Your task to perform on an android device: check google app version Image 0: 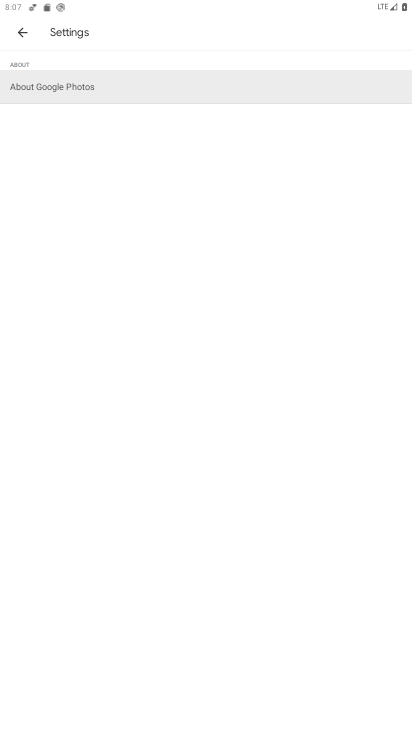
Step 0: press home button
Your task to perform on an android device: check google app version Image 1: 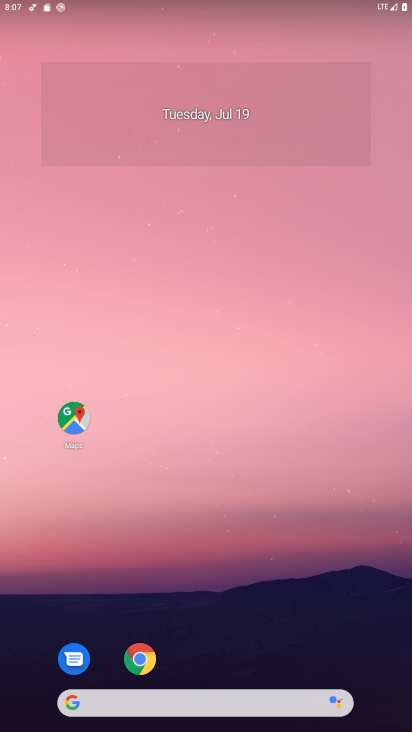
Step 1: click (65, 702)
Your task to perform on an android device: check google app version Image 2: 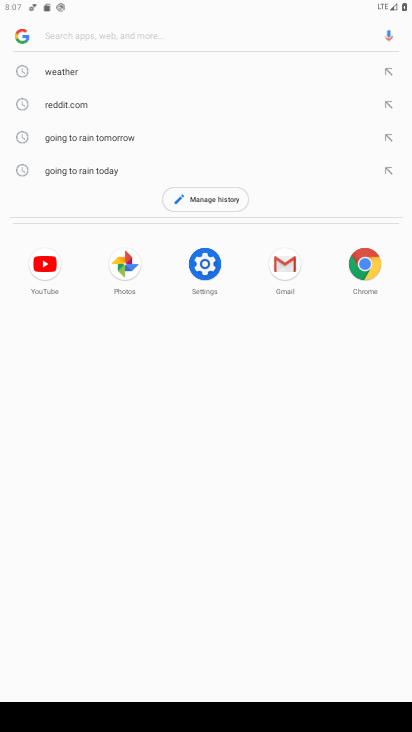
Step 2: click (20, 25)
Your task to perform on an android device: check google app version Image 3: 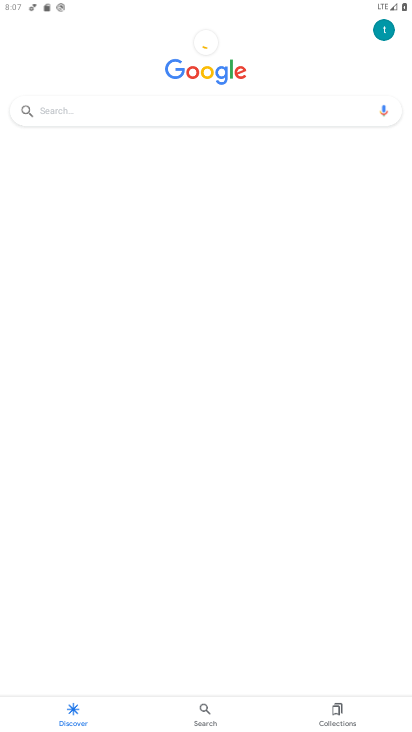
Step 3: click (386, 36)
Your task to perform on an android device: check google app version Image 4: 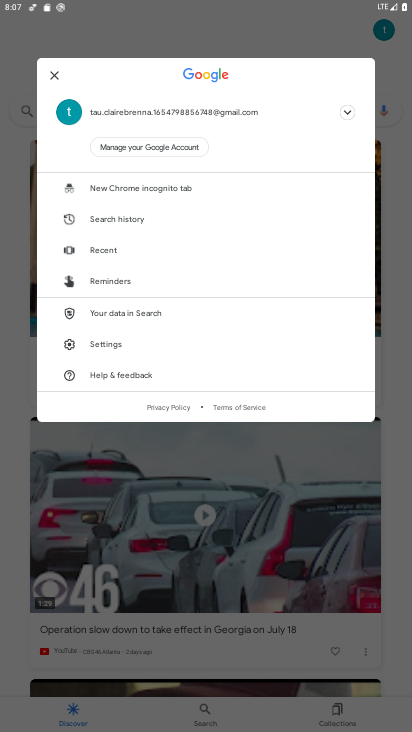
Step 4: click (110, 348)
Your task to perform on an android device: check google app version Image 5: 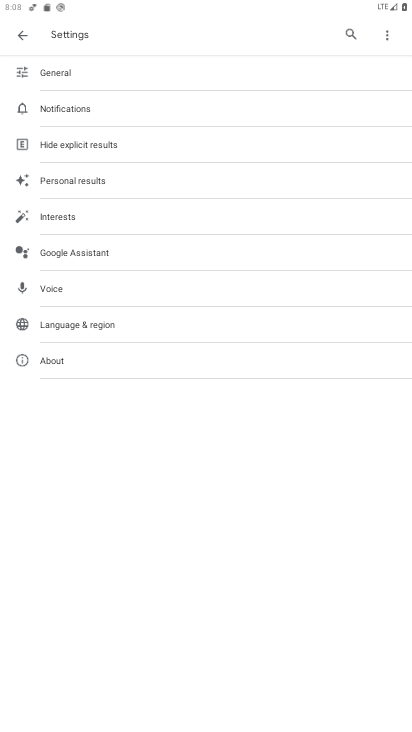
Step 5: click (65, 364)
Your task to perform on an android device: check google app version Image 6: 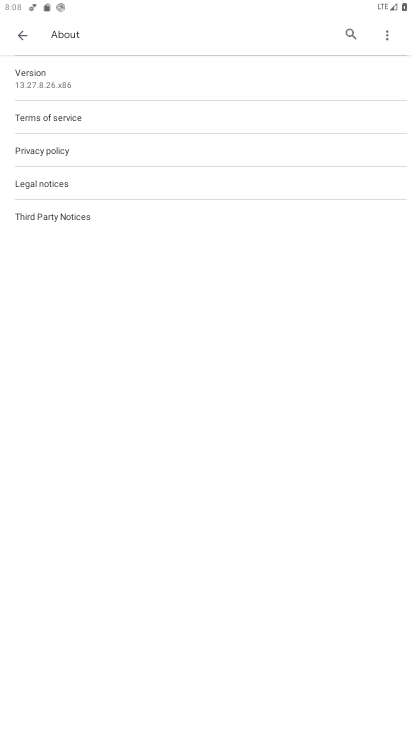
Step 6: task complete